Your task to perform on an android device: Open Youtube and go to the subscriptions tab Image 0: 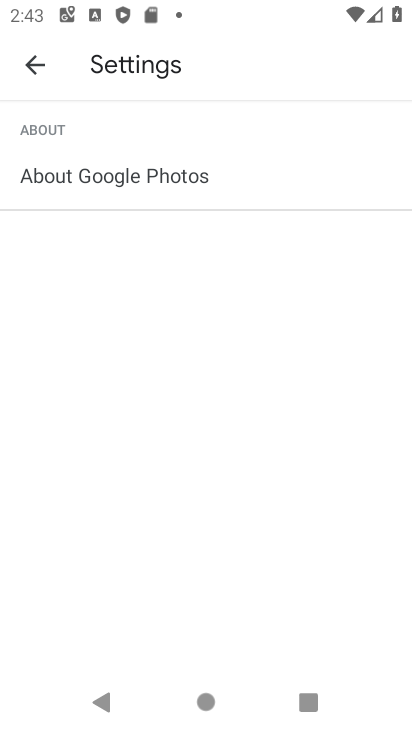
Step 0: press home button
Your task to perform on an android device: Open Youtube and go to the subscriptions tab Image 1: 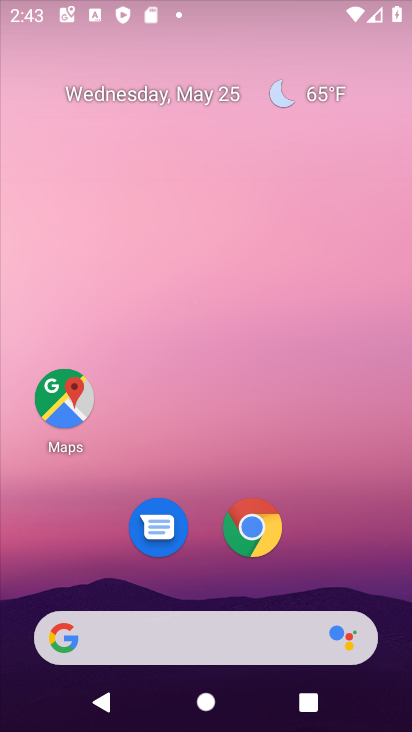
Step 1: drag from (289, 714) to (328, 4)
Your task to perform on an android device: Open Youtube and go to the subscriptions tab Image 2: 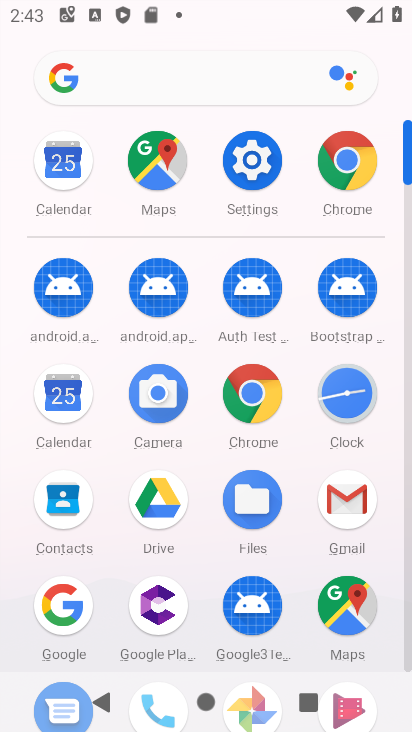
Step 2: drag from (297, 649) to (343, 161)
Your task to perform on an android device: Open Youtube and go to the subscriptions tab Image 3: 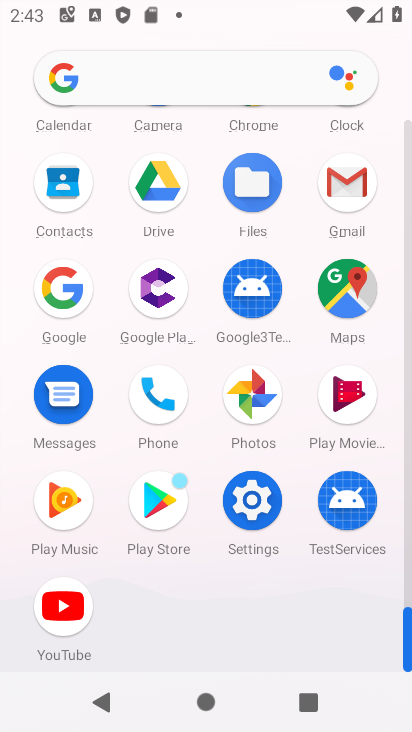
Step 3: click (58, 606)
Your task to perform on an android device: Open Youtube and go to the subscriptions tab Image 4: 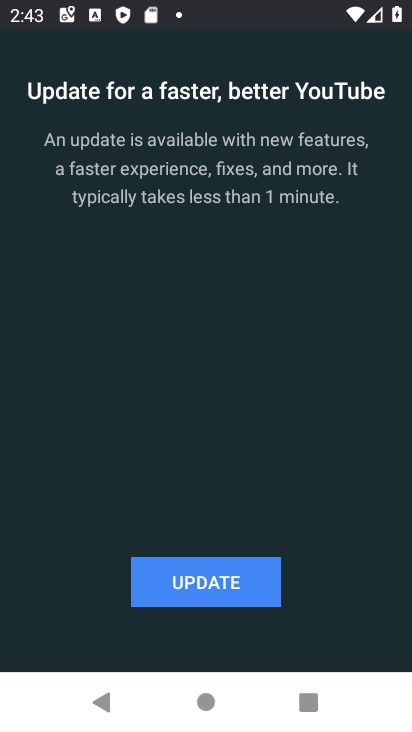
Step 4: click (260, 592)
Your task to perform on an android device: Open Youtube and go to the subscriptions tab Image 5: 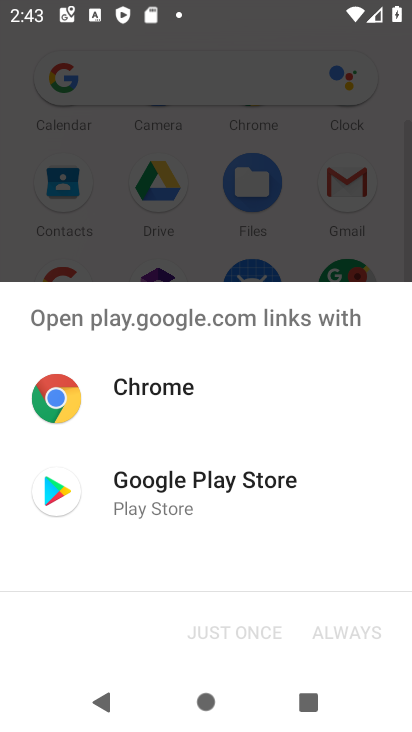
Step 5: click (174, 495)
Your task to perform on an android device: Open Youtube and go to the subscriptions tab Image 6: 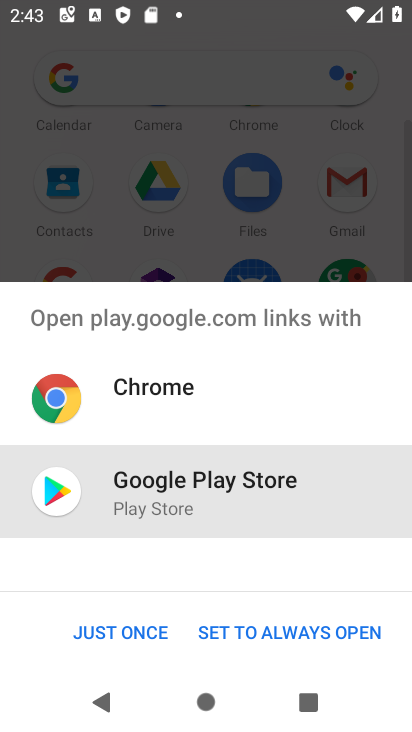
Step 6: click (147, 629)
Your task to perform on an android device: Open Youtube and go to the subscriptions tab Image 7: 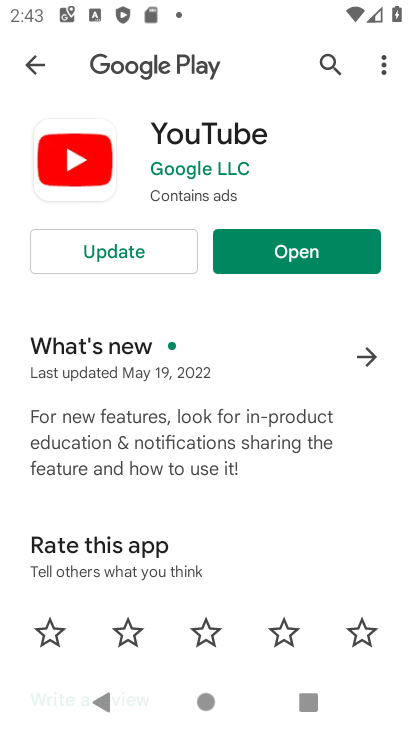
Step 7: click (164, 250)
Your task to perform on an android device: Open Youtube and go to the subscriptions tab Image 8: 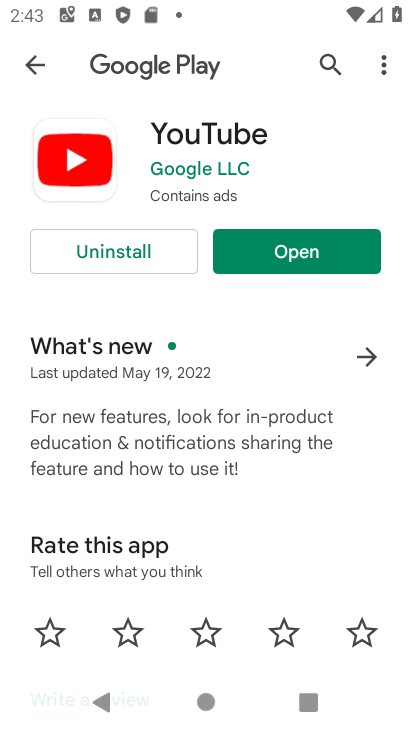
Step 8: click (273, 252)
Your task to perform on an android device: Open Youtube and go to the subscriptions tab Image 9: 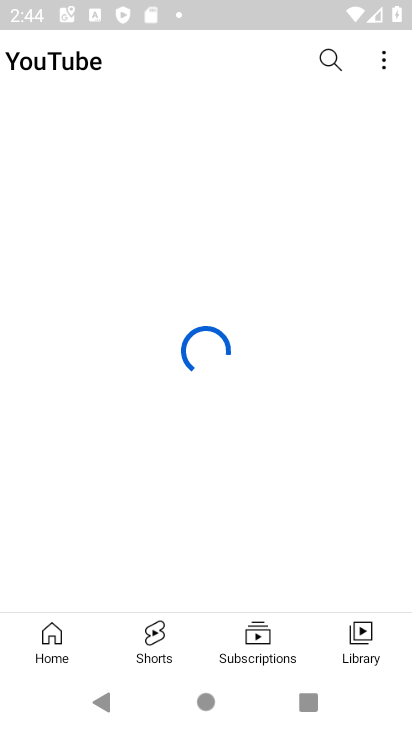
Step 9: click (367, 642)
Your task to perform on an android device: Open Youtube and go to the subscriptions tab Image 10: 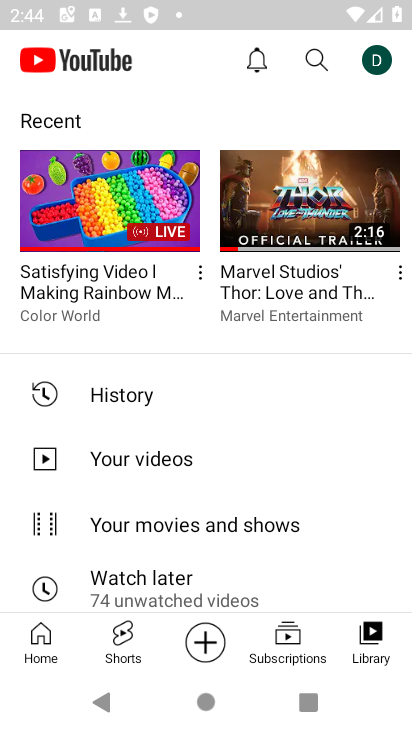
Step 10: click (301, 644)
Your task to perform on an android device: Open Youtube and go to the subscriptions tab Image 11: 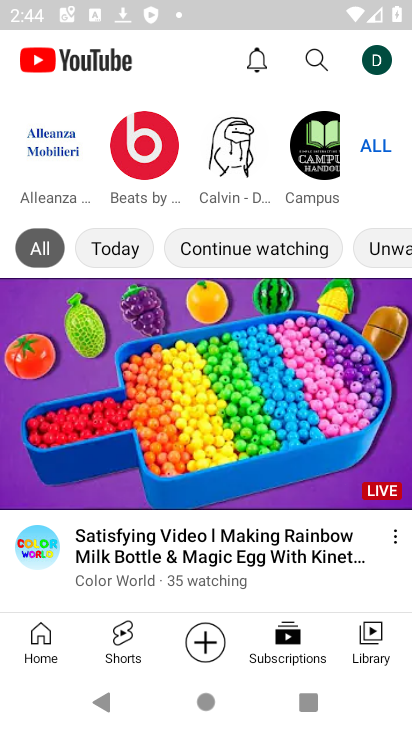
Step 11: task complete